Your task to perform on an android device: When is my next appointment? Image 0: 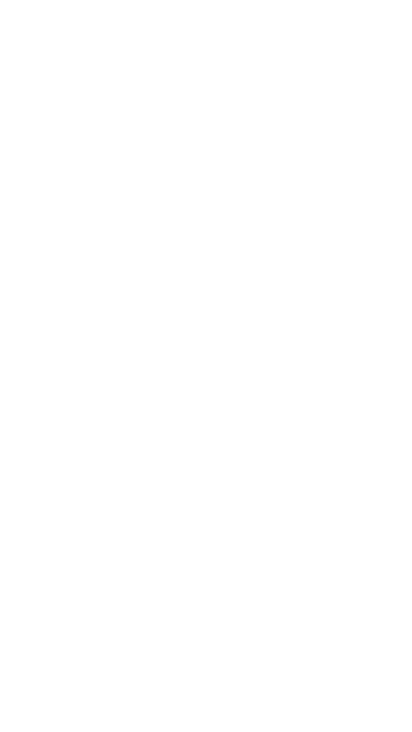
Step 0: click (298, 242)
Your task to perform on an android device: When is my next appointment? Image 1: 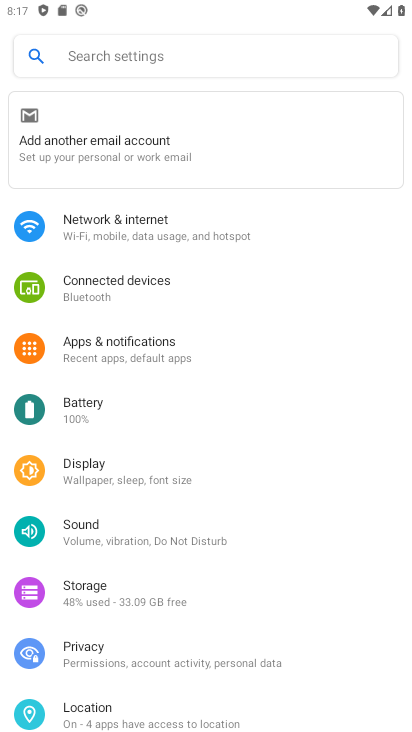
Step 1: press home button
Your task to perform on an android device: When is my next appointment? Image 2: 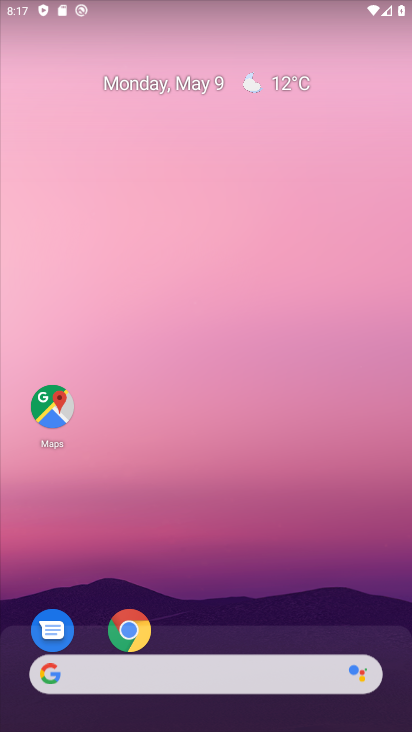
Step 2: drag from (230, 636) to (342, 34)
Your task to perform on an android device: When is my next appointment? Image 3: 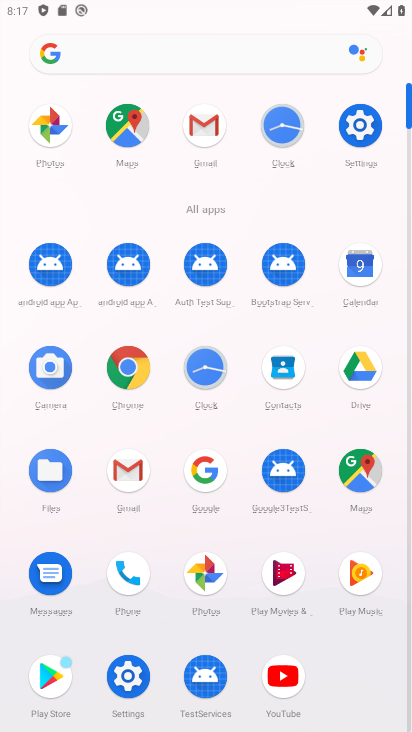
Step 3: click (361, 276)
Your task to perform on an android device: When is my next appointment? Image 4: 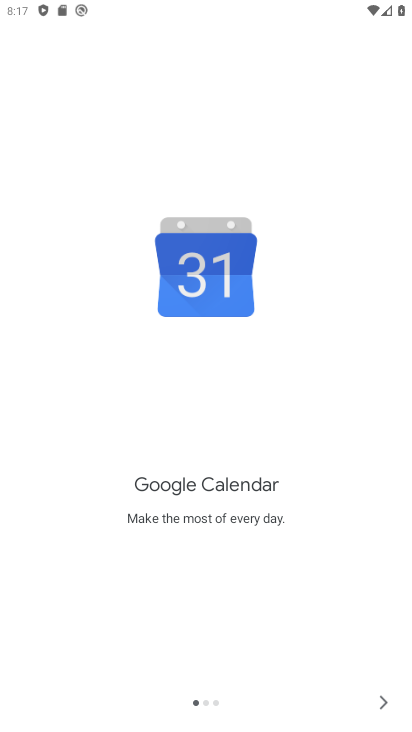
Step 4: click (390, 701)
Your task to perform on an android device: When is my next appointment? Image 5: 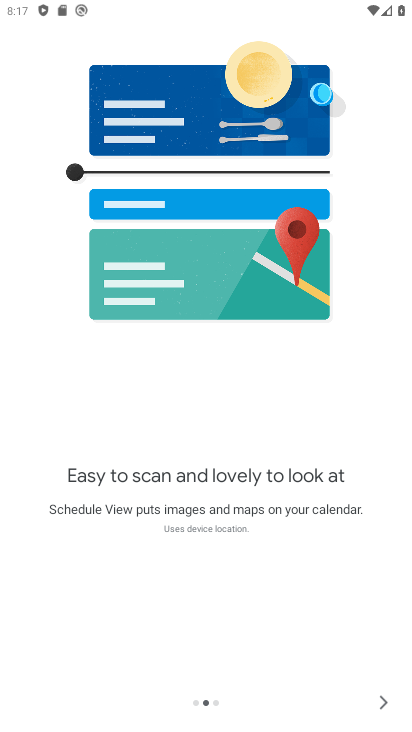
Step 5: click (390, 701)
Your task to perform on an android device: When is my next appointment? Image 6: 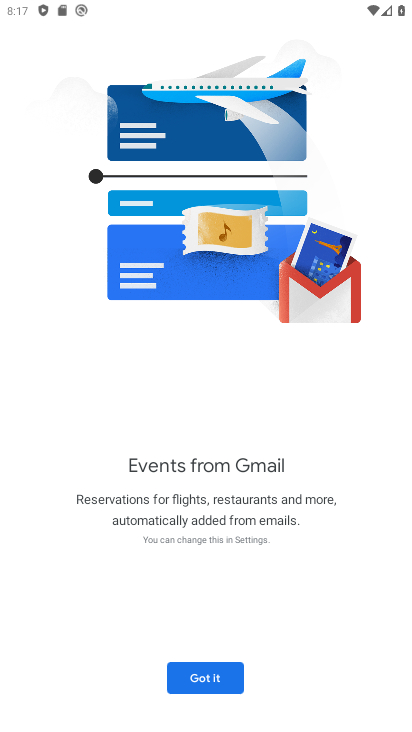
Step 6: click (217, 693)
Your task to perform on an android device: When is my next appointment? Image 7: 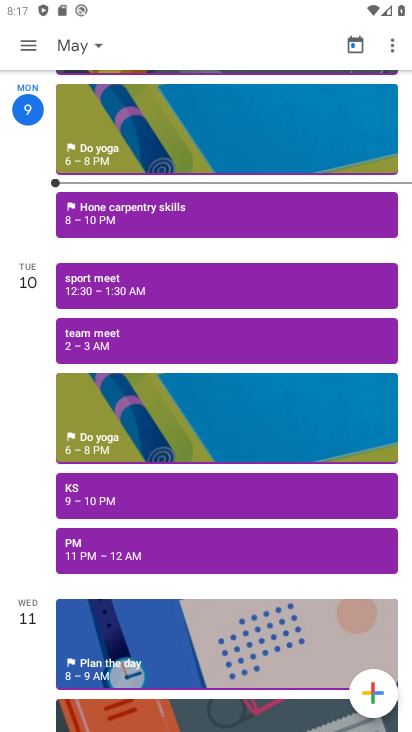
Step 7: task complete